Your task to perform on an android device: allow notifications from all sites in the chrome app Image 0: 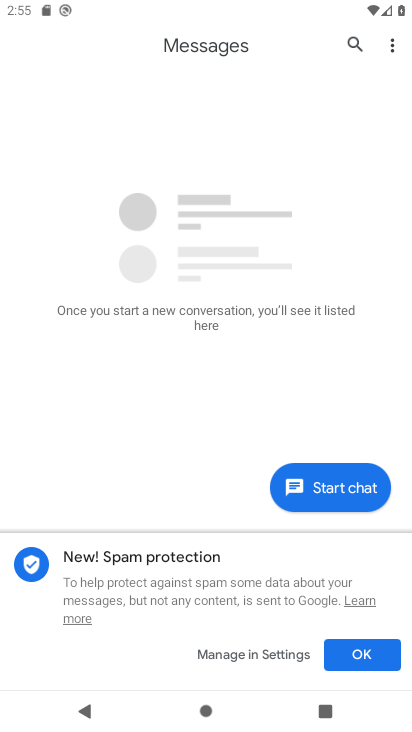
Step 0: press home button
Your task to perform on an android device: allow notifications from all sites in the chrome app Image 1: 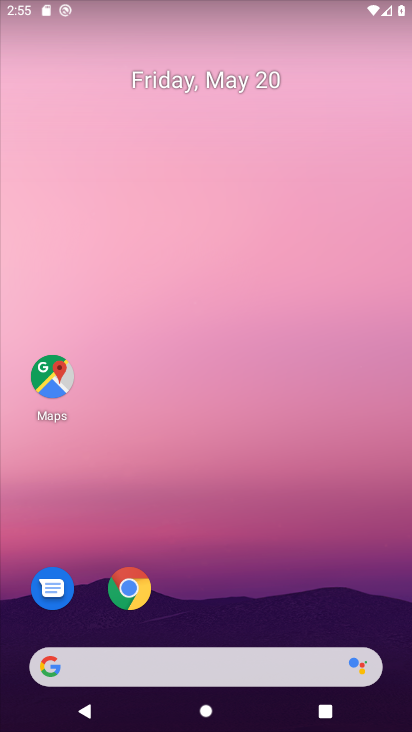
Step 1: click (127, 585)
Your task to perform on an android device: allow notifications from all sites in the chrome app Image 2: 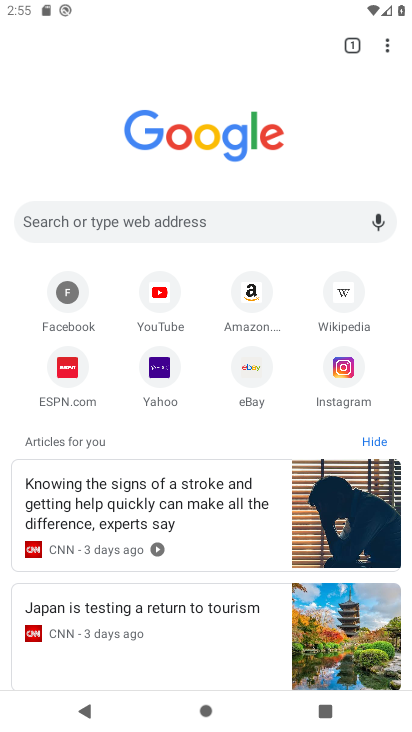
Step 2: drag from (385, 50) to (268, 376)
Your task to perform on an android device: allow notifications from all sites in the chrome app Image 3: 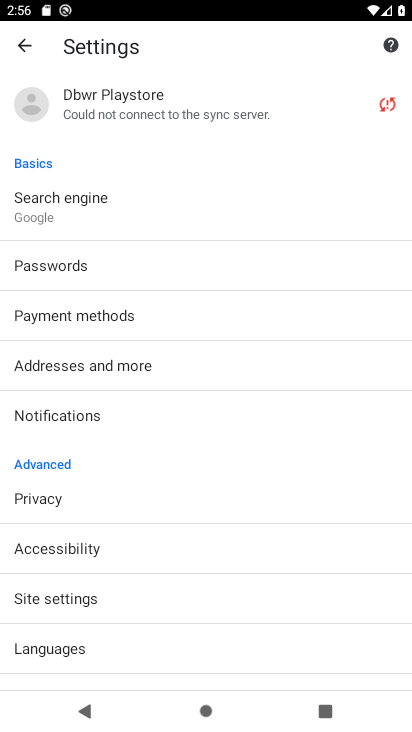
Step 3: click (78, 420)
Your task to perform on an android device: allow notifications from all sites in the chrome app Image 4: 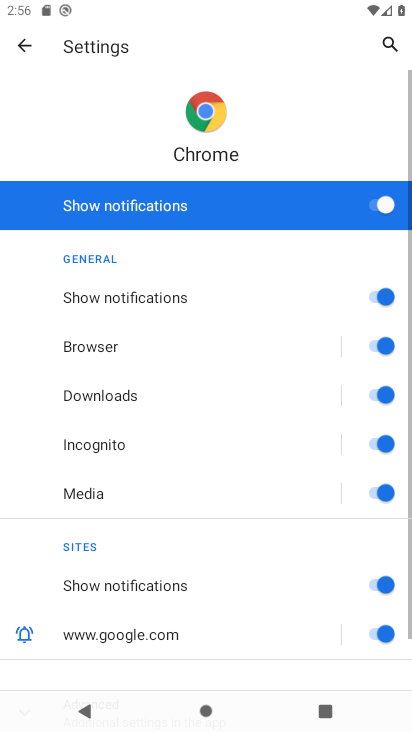
Step 4: click (18, 42)
Your task to perform on an android device: allow notifications from all sites in the chrome app Image 5: 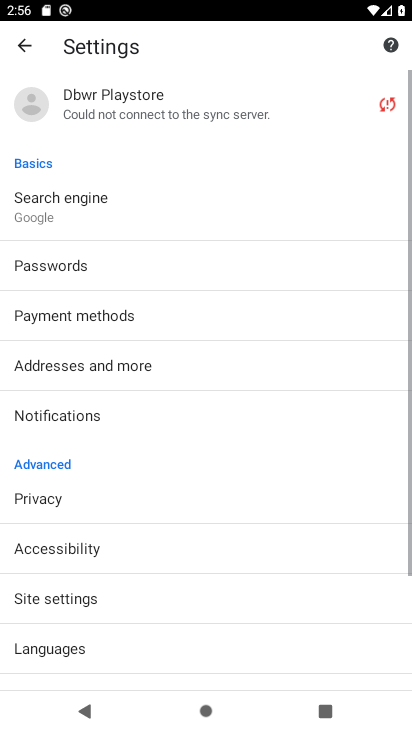
Step 5: click (84, 601)
Your task to perform on an android device: allow notifications from all sites in the chrome app Image 6: 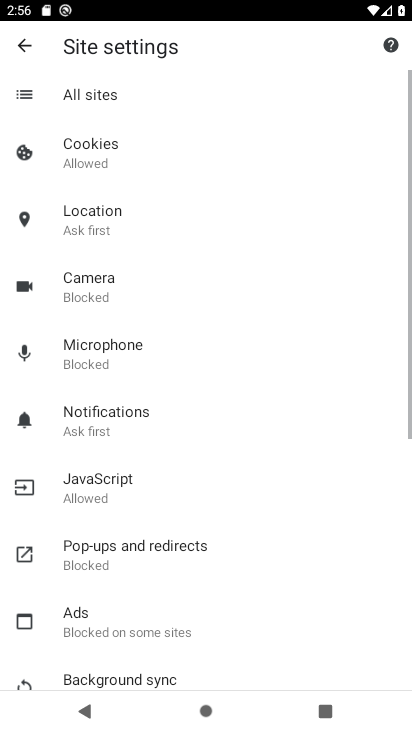
Step 6: click (115, 436)
Your task to perform on an android device: allow notifications from all sites in the chrome app Image 7: 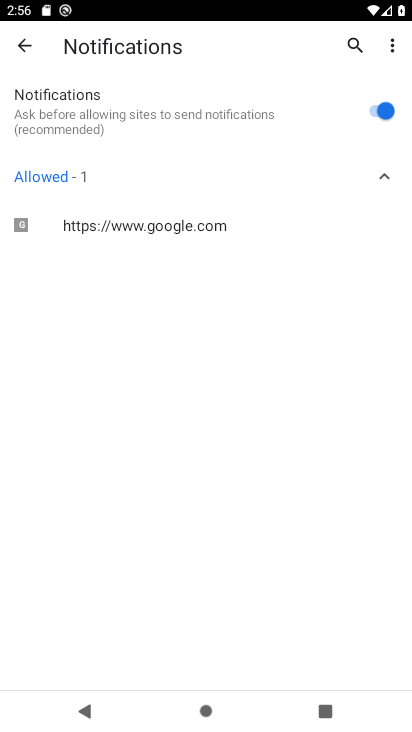
Step 7: task complete